Your task to perform on an android device: add a contact Image 0: 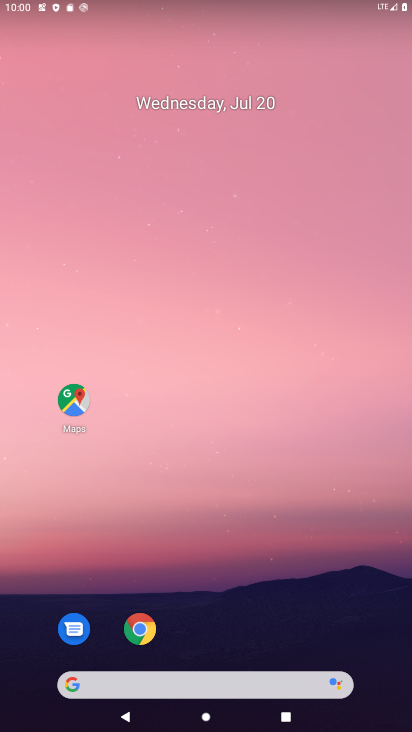
Step 0: drag from (263, 582) to (277, 8)
Your task to perform on an android device: add a contact Image 1: 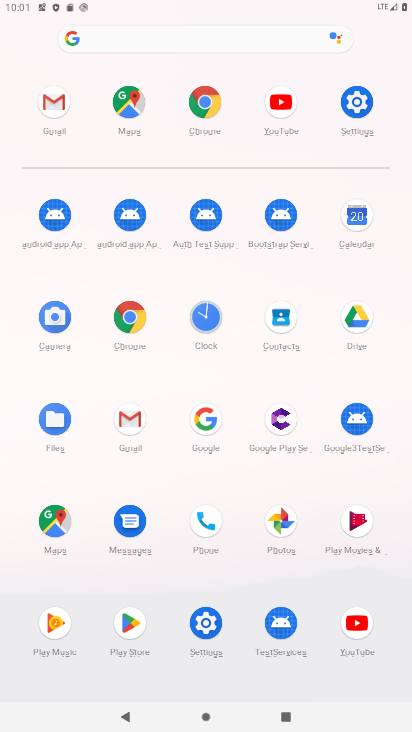
Step 1: click (276, 324)
Your task to perform on an android device: add a contact Image 2: 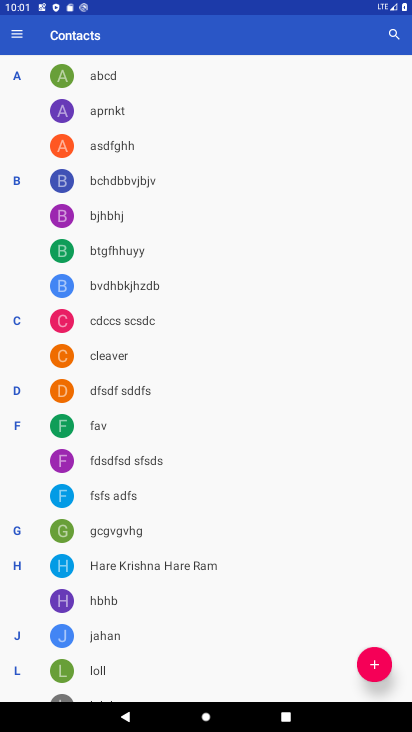
Step 2: click (362, 675)
Your task to perform on an android device: add a contact Image 3: 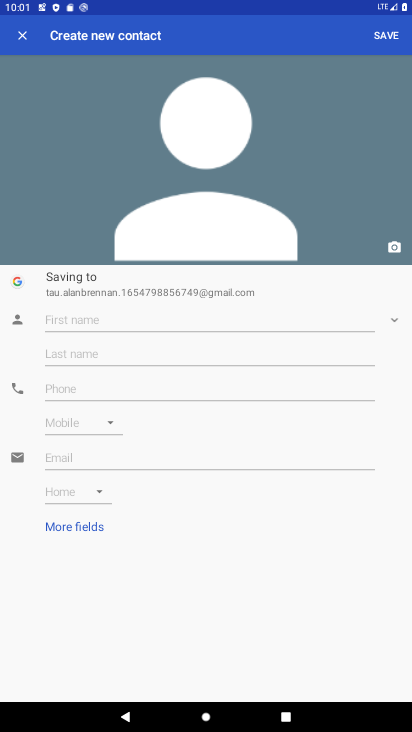
Step 3: click (189, 317)
Your task to perform on an android device: add a contact Image 4: 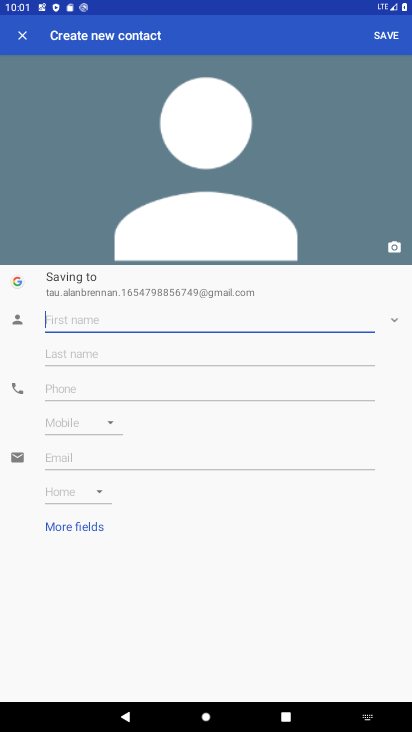
Step 4: click (189, 317)
Your task to perform on an android device: add a contact Image 5: 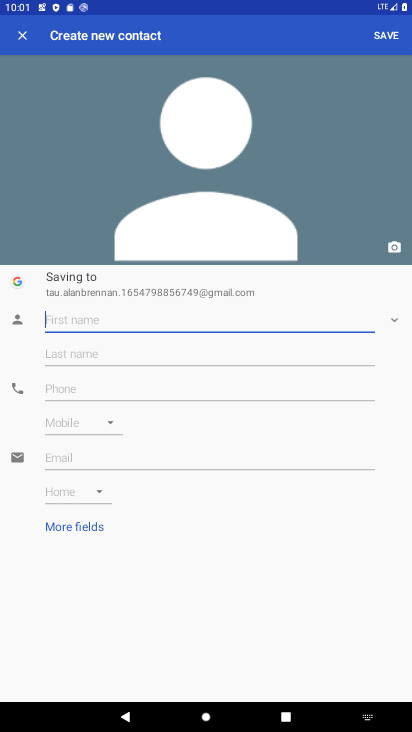
Step 5: type "ccccccccccccjjj"
Your task to perform on an android device: add a contact Image 6: 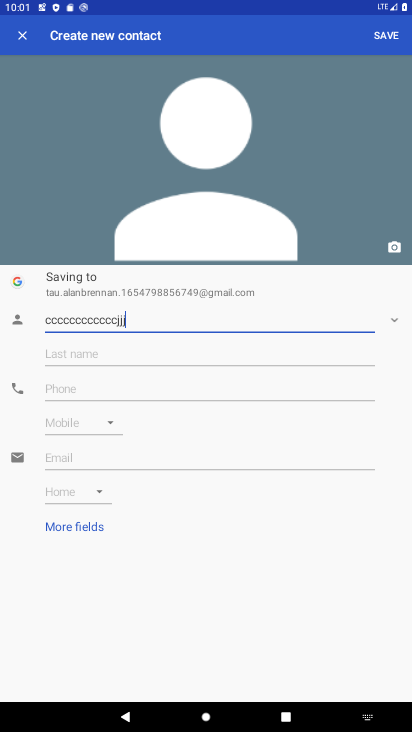
Step 6: click (57, 386)
Your task to perform on an android device: add a contact Image 7: 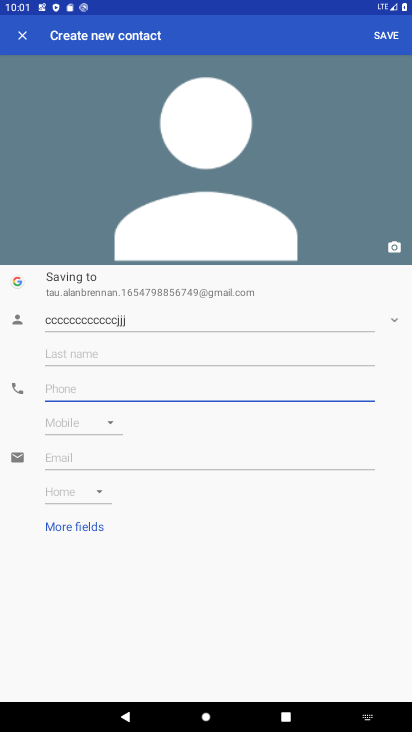
Step 7: type "44444555555555555555555557777"
Your task to perform on an android device: add a contact Image 8: 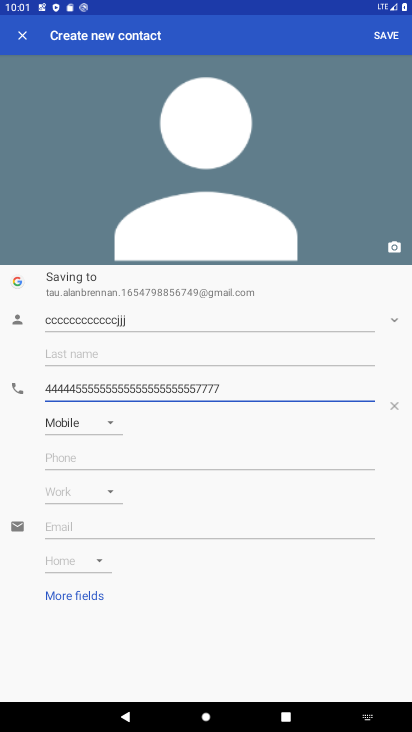
Step 8: click (378, 36)
Your task to perform on an android device: add a contact Image 9: 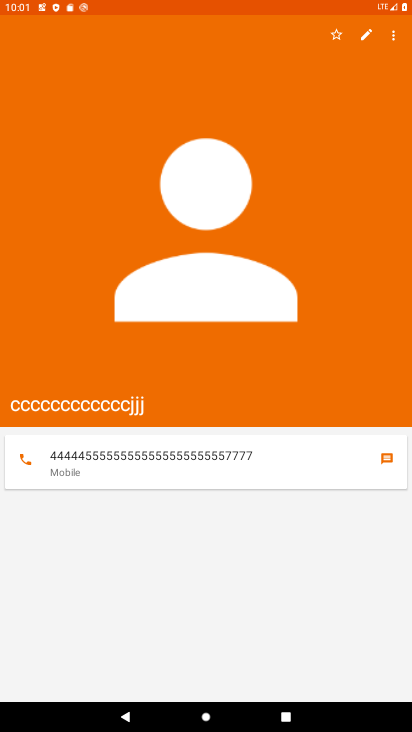
Step 9: task complete